Your task to perform on an android device: turn off airplane mode Image 0: 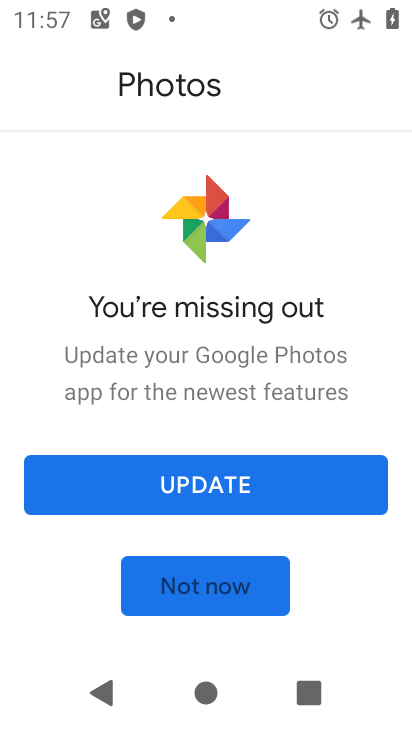
Step 0: press home button
Your task to perform on an android device: turn off airplane mode Image 1: 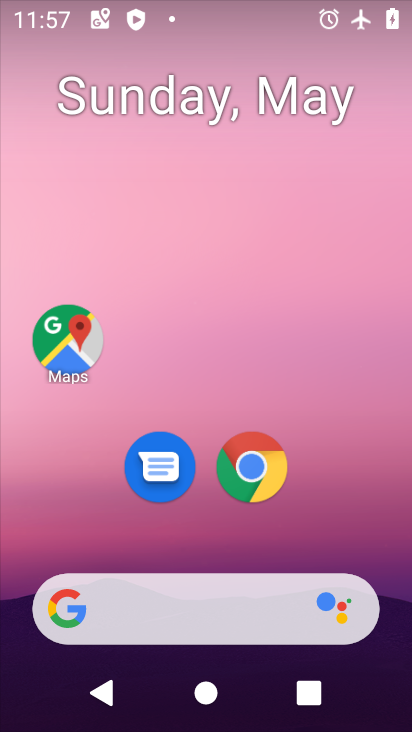
Step 1: drag from (370, 551) to (372, 8)
Your task to perform on an android device: turn off airplane mode Image 2: 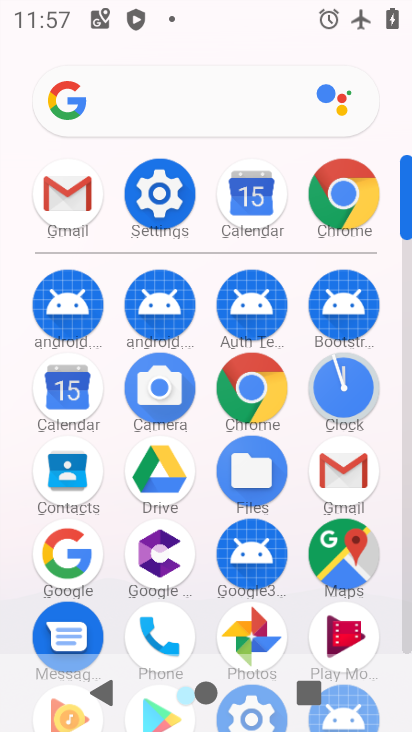
Step 2: click (155, 205)
Your task to perform on an android device: turn off airplane mode Image 3: 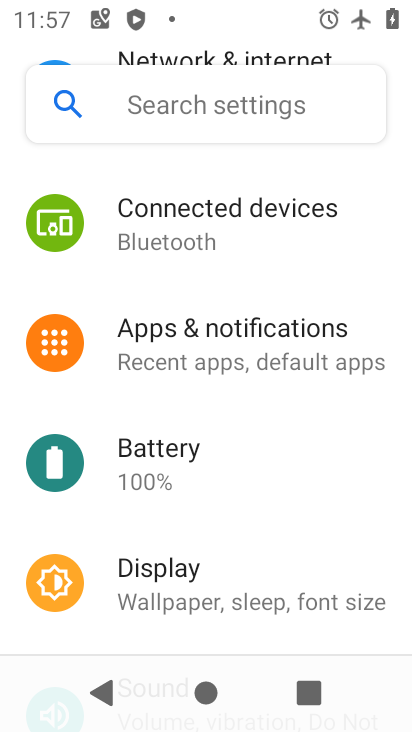
Step 3: drag from (335, 253) to (374, 614)
Your task to perform on an android device: turn off airplane mode Image 4: 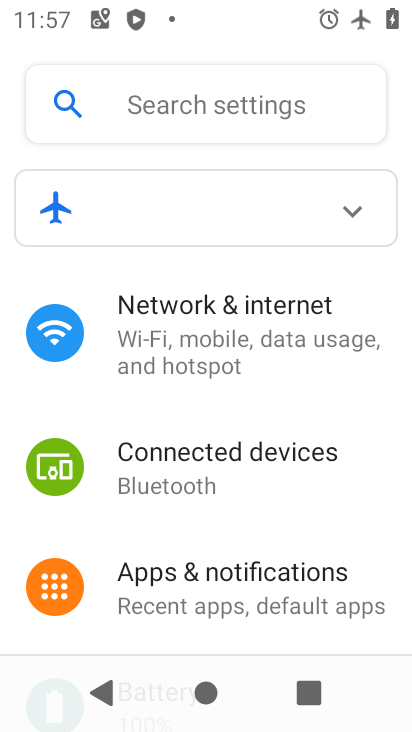
Step 4: click (196, 339)
Your task to perform on an android device: turn off airplane mode Image 5: 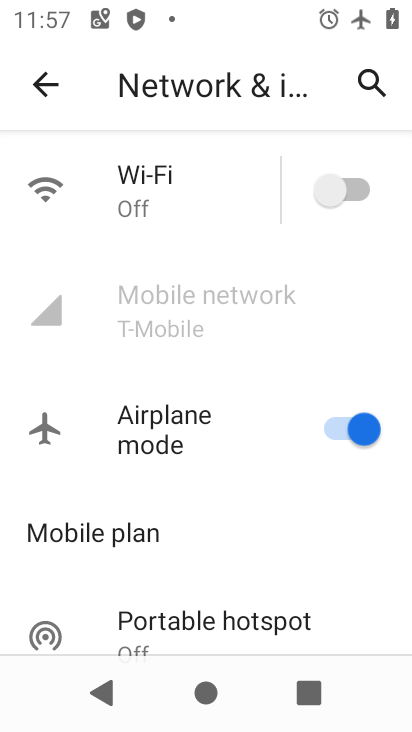
Step 5: click (342, 428)
Your task to perform on an android device: turn off airplane mode Image 6: 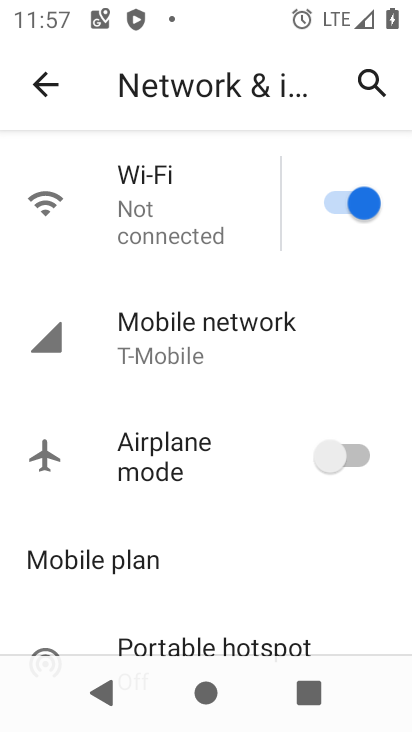
Step 6: task complete